Your task to perform on an android device: Go to CNN.com Image 0: 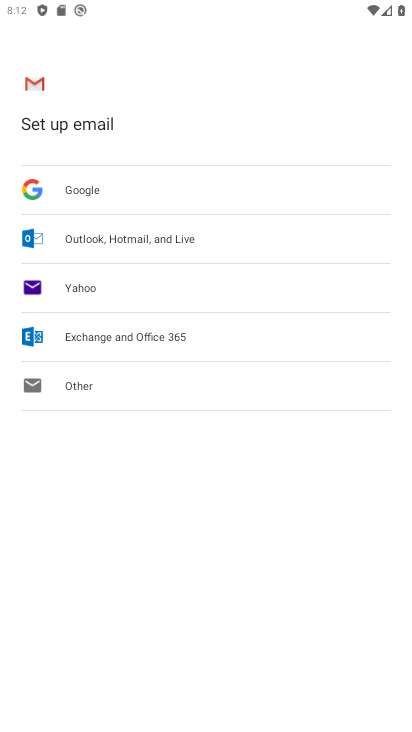
Step 0: press home button
Your task to perform on an android device: Go to CNN.com Image 1: 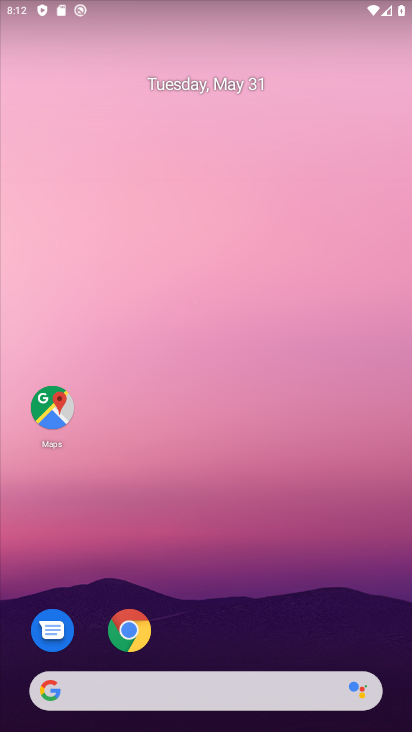
Step 1: click (163, 681)
Your task to perform on an android device: Go to CNN.com Image 2: 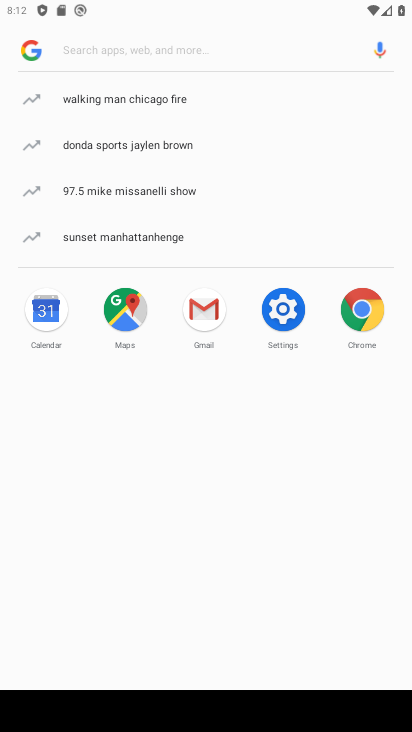
Step 2: type "CNN.com"
Your task to perform on an android device: Go to CNN.com Image 3: 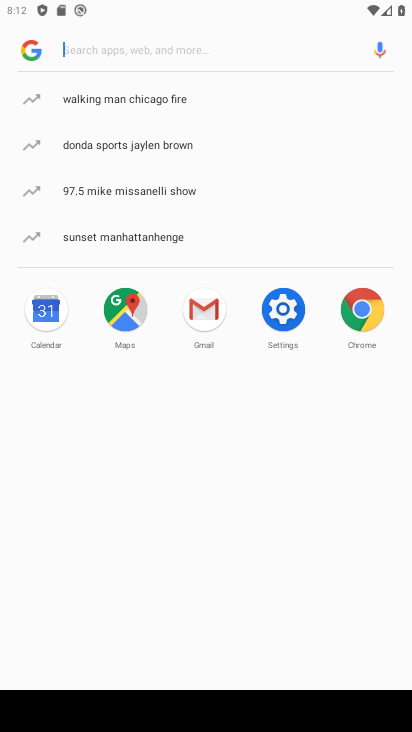
Step 3: click (184, 47)
Your task to perform on an android device: Go to CNN.com Image 4: 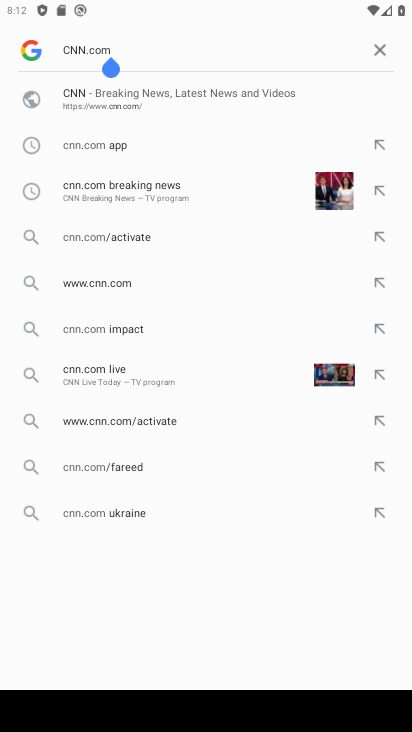
Step 4: click (149, 93)
Your task to perform on an android device: Go to CNN.com Image 5: 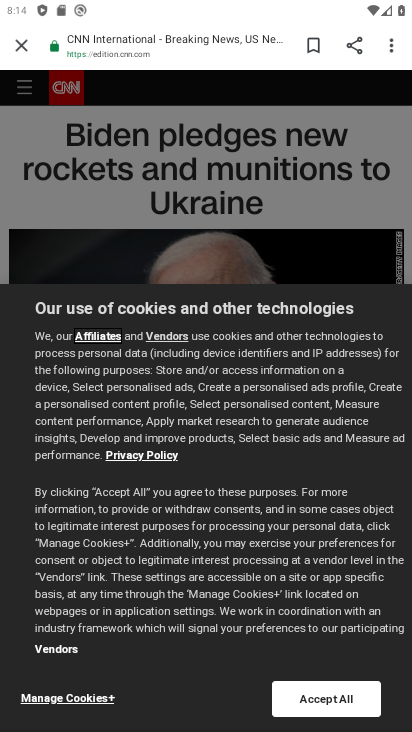
Step 5: click (369, 690)
Your task to perform on an android device: Go to CNN.com Image 6: 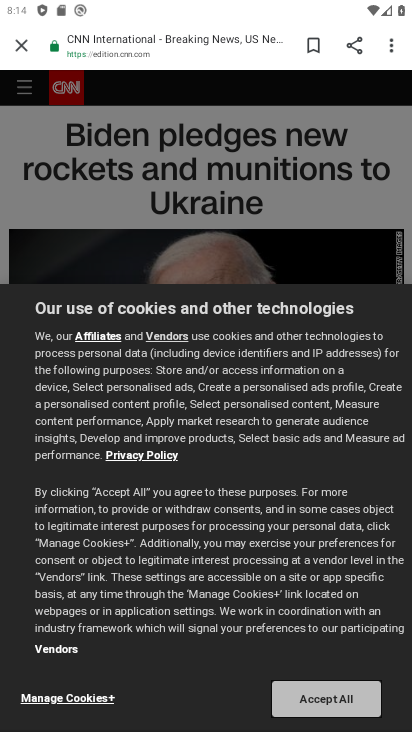
Step 6: click (329, 699)
Your task to perform on an android device: Go to CNN.com Image 7: 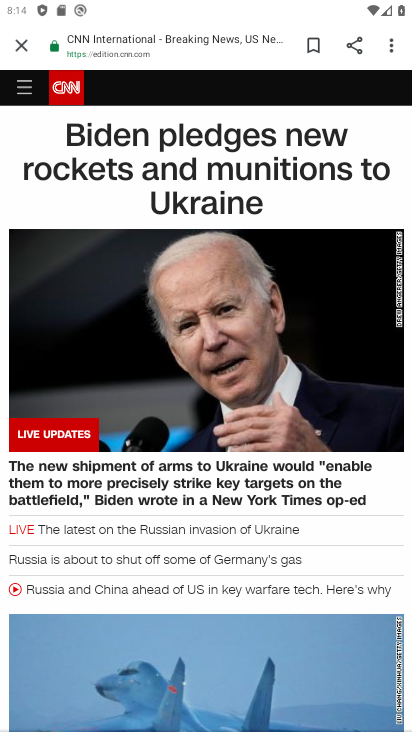
Step 7: task complete